Your task to perform on an android device: open app "Gmail" Image 0: 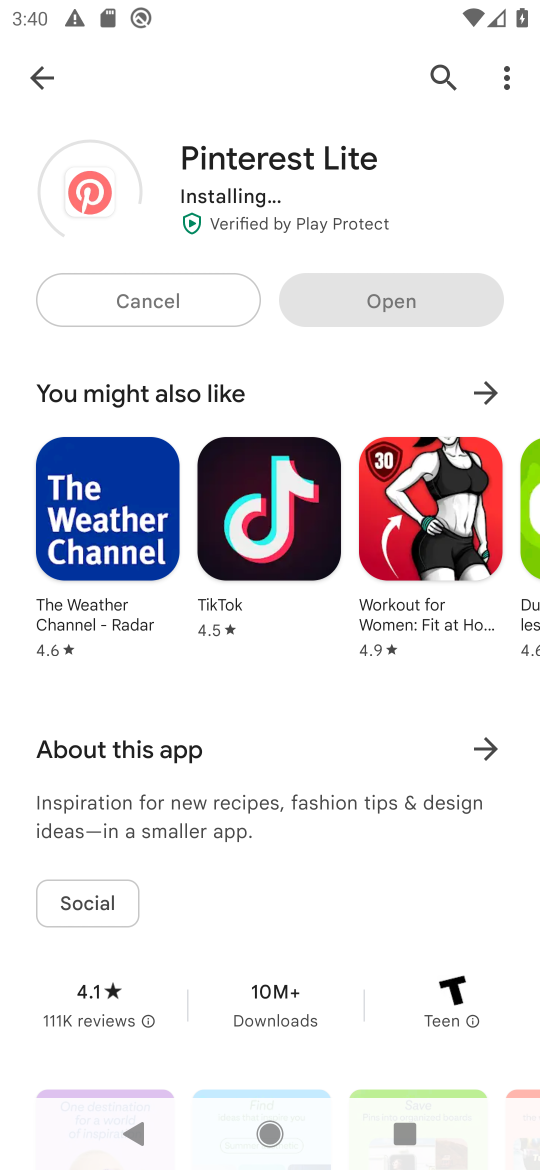
Step 0: press back button
Your task to perform on an android device: open app "Gmail" Image 1: 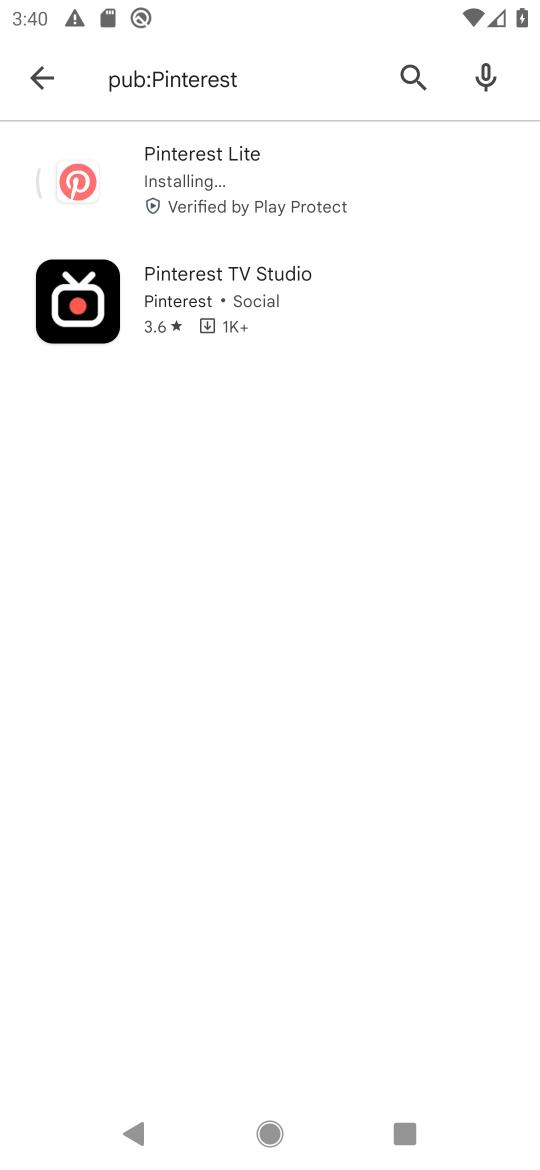
Step 1: click (42, 75)
Your task to perform on an android device: open app "Gmail" Image 2: 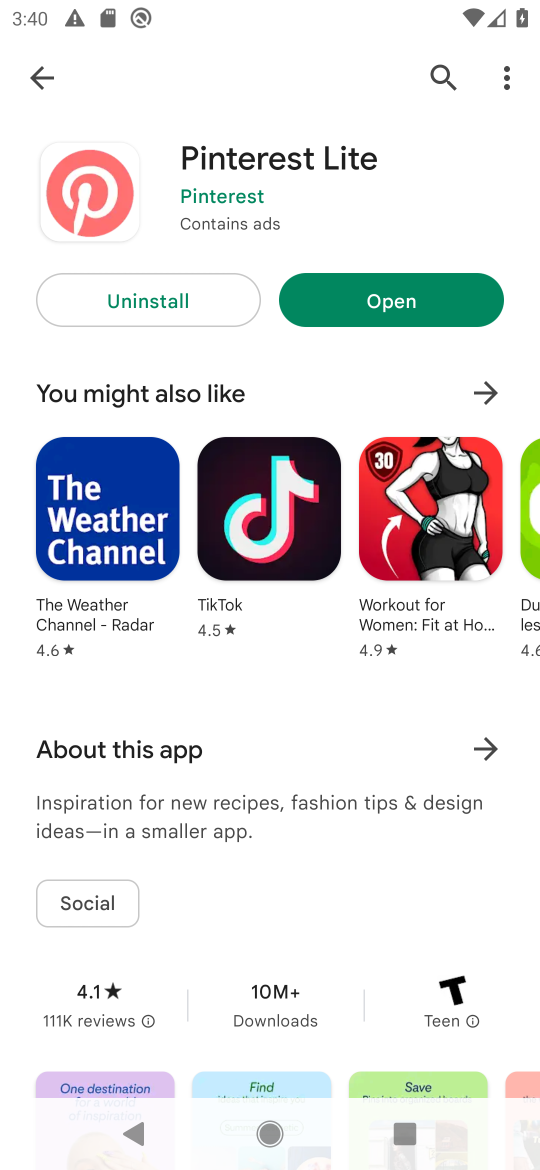
Step 2: click (49, 72)
Your task to perform on an android device: open app "Gmail" Image 3: 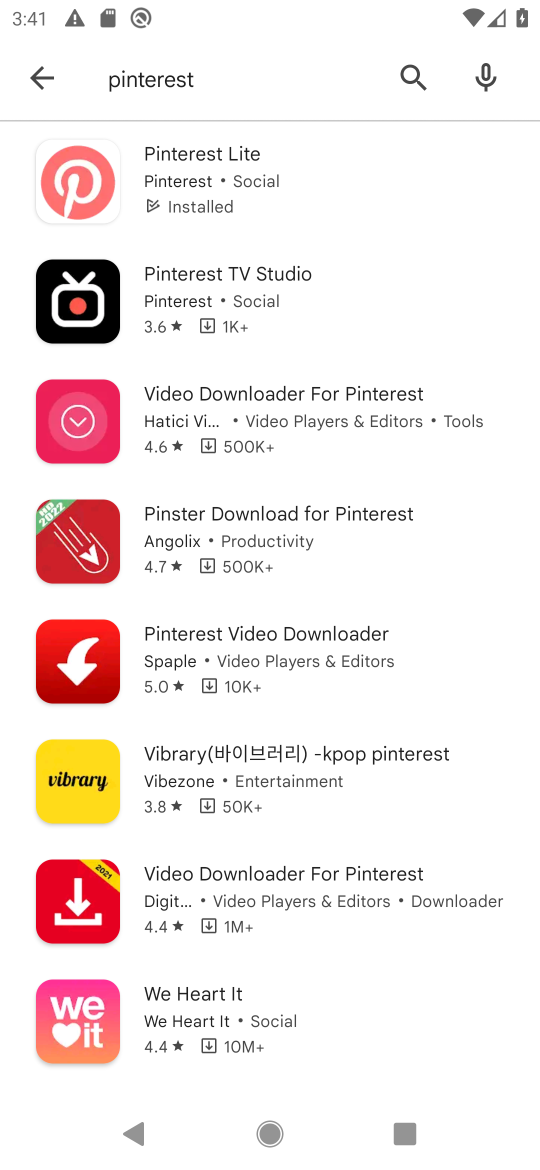
Step 3: click (41, 67)
Your task to perform on an android device: open app "Gmail" Image 4: 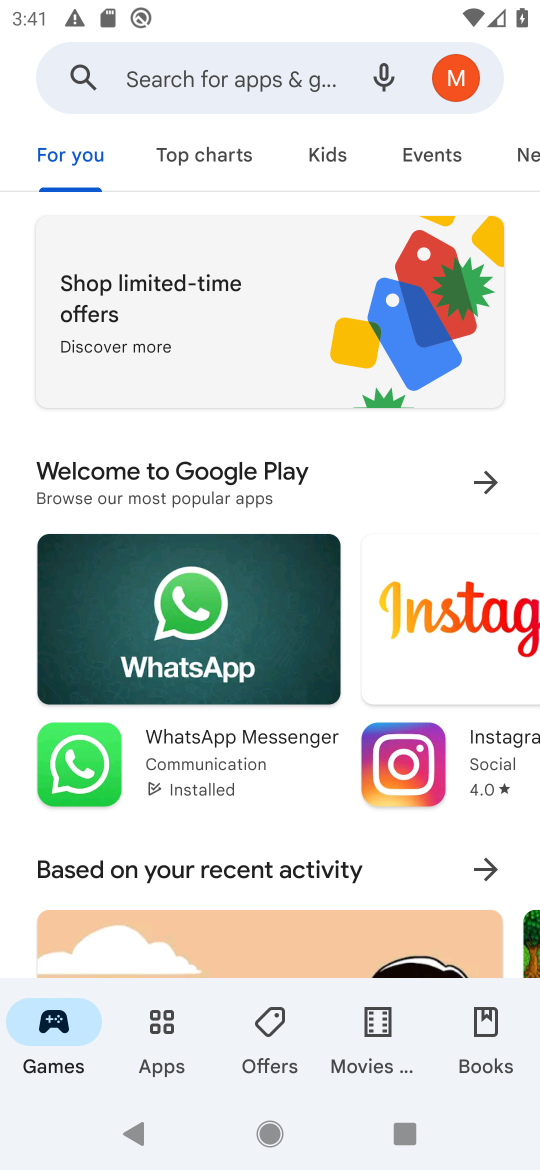
Step 4: click (171, 74)
Your task to perform on an android device: open app "Gmail" Image 5: 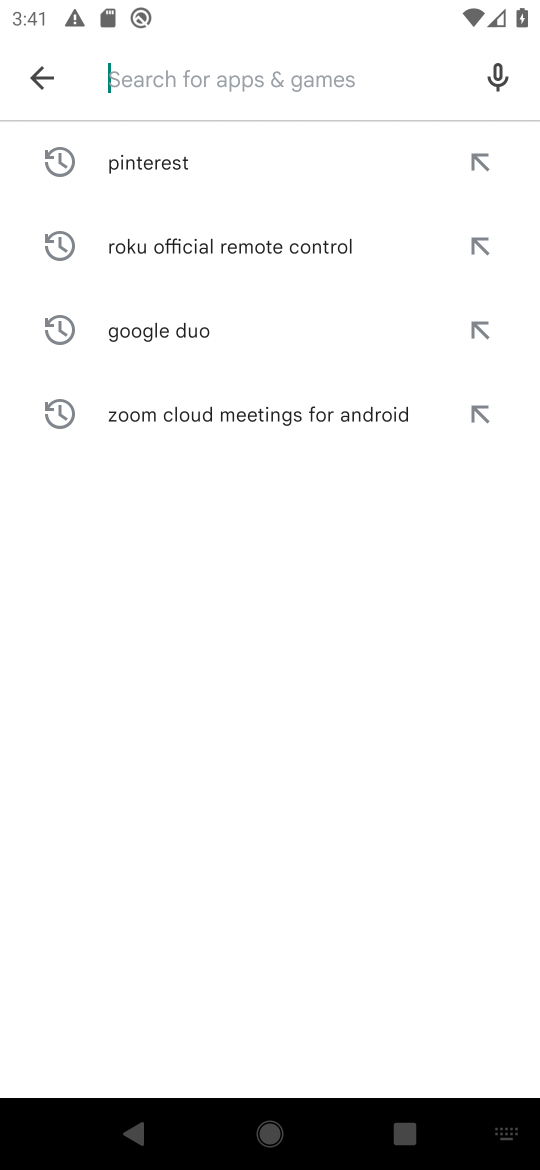
Step 5: type "Gmail"
Your task to perform on an android device: open app "Gmail" Image 6: 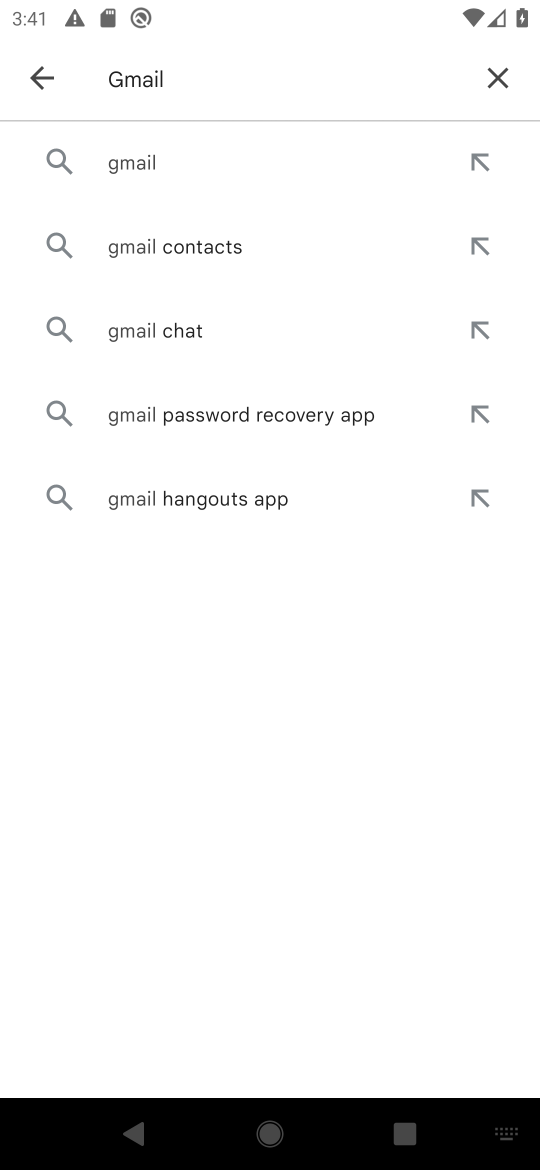
Step 6: click (114, 171)
Your task to perform on an android device: open app "Gmail" Image 7: 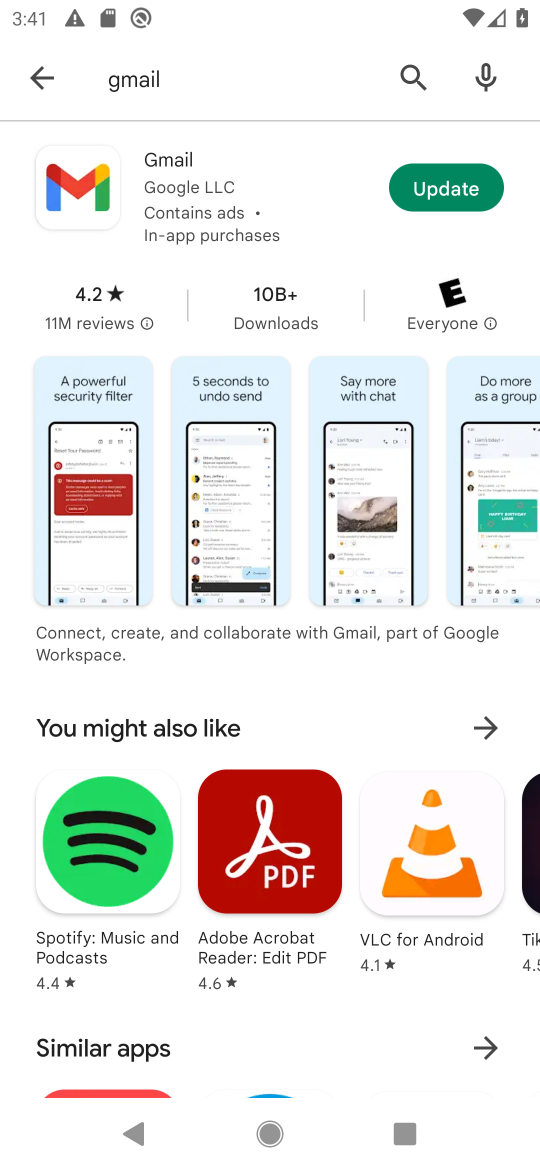
Step 7: click (423, 187)
Your task to perform on an android device: open app "Gmail" Image 8: 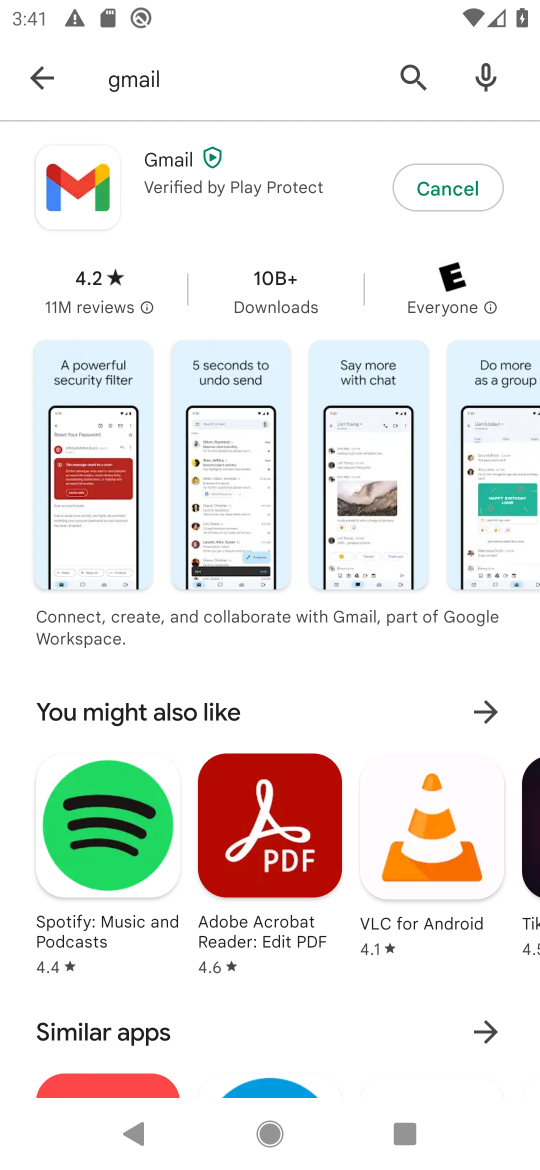
Step 8: click (438, 183)
Your task to perform on an android device: open app "Gmail" Image 9: 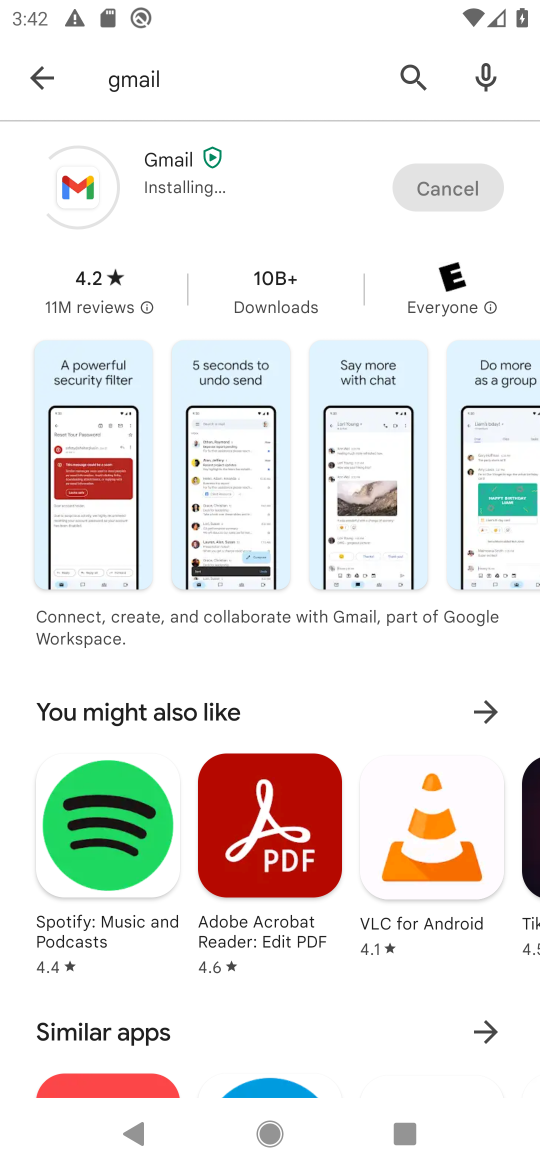
Step 9: task complete